Your task to perform on an android device: Go to Reddit.com Image 0: 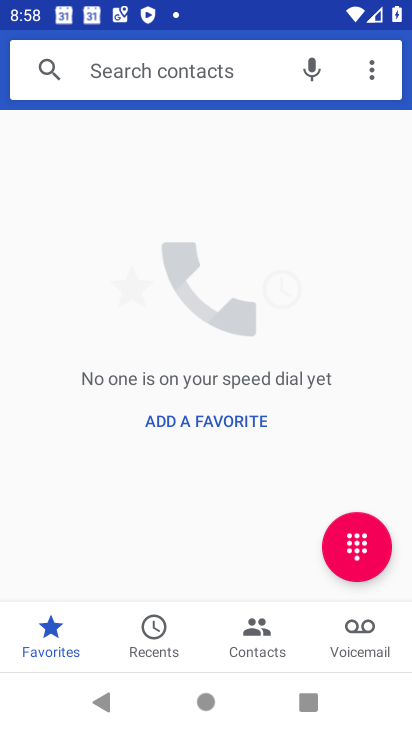
Step 0: press home button
Your task to perform on an android device: Go to Reddit.com Image 1: 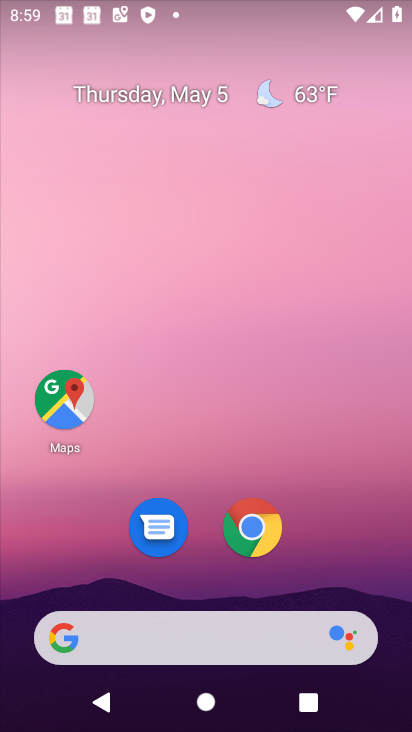
Step 1: click (209, 619)
Your task to perform on an android device: Go to Reddit.com Image 2: 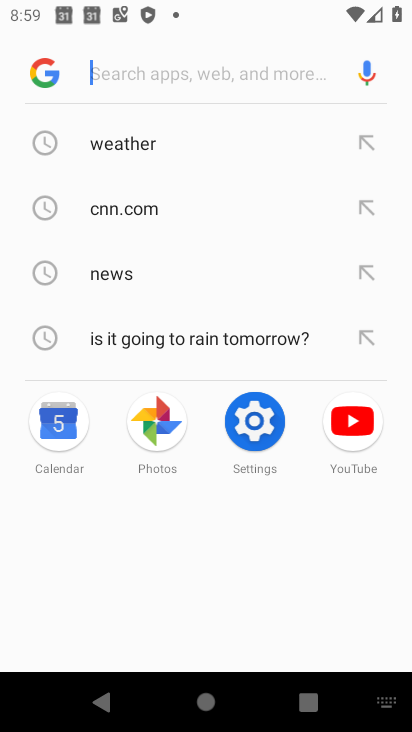
Step 2: type "reddit.com"
Your task to perform on an android device: Go to Reddit.com Image 3: 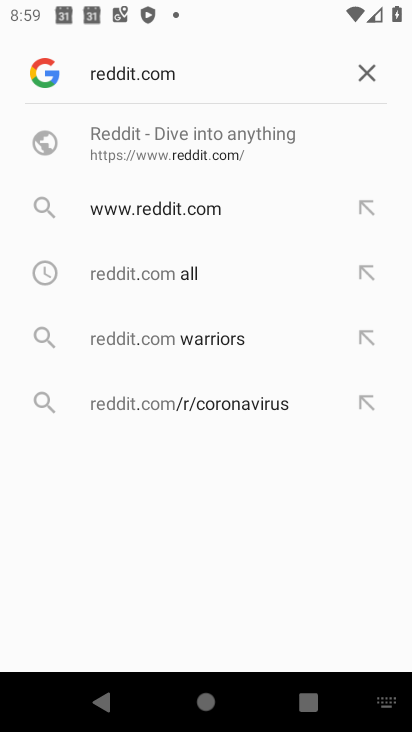
Step 3: click (247, 136)
Your task to perform on an android device: Go to Reddit.com Image 4: 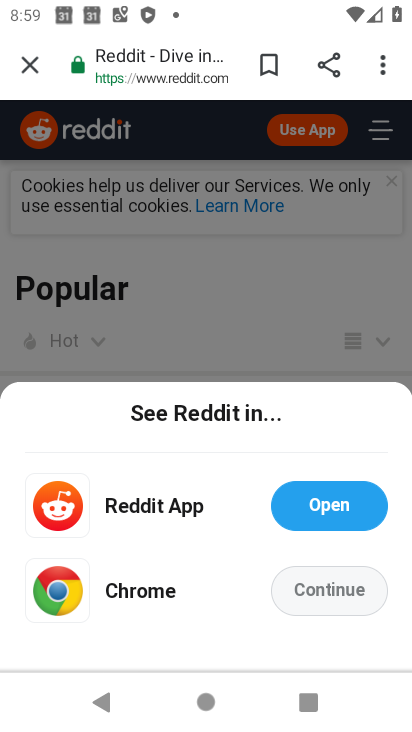
Step 4: task complete